Your task to perform on an android device: Show me popular games on the Play Store Image 0: 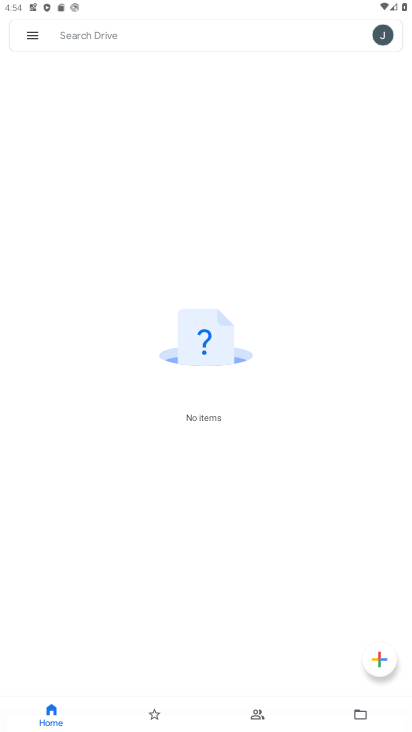
Step 0: press home button
Your task to perform on an android device: Show me popular games on the Play Store Image 1: 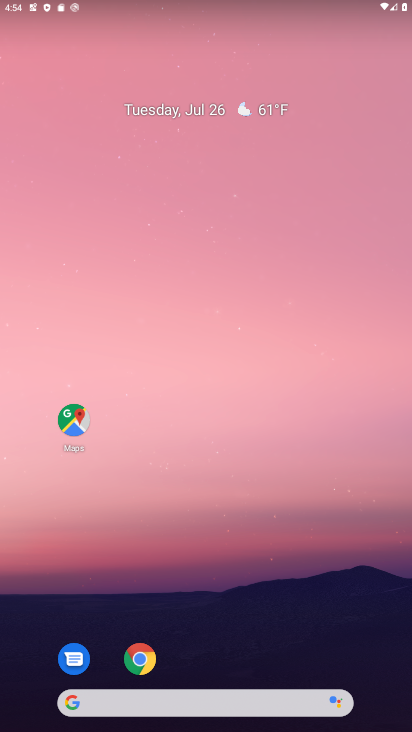
Step 1: drag from (285, 578) to (274, 252)
Your task to perform on an android device: Show me popular games on the Play Store Image 2: 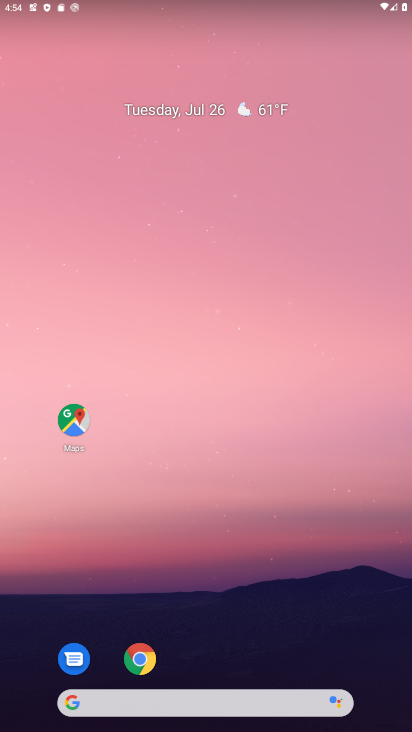
Step 2: drag from (196, 550) to (259, 0)
Your task to perform on an android device: Show me popular games on the Play Store Image 3: 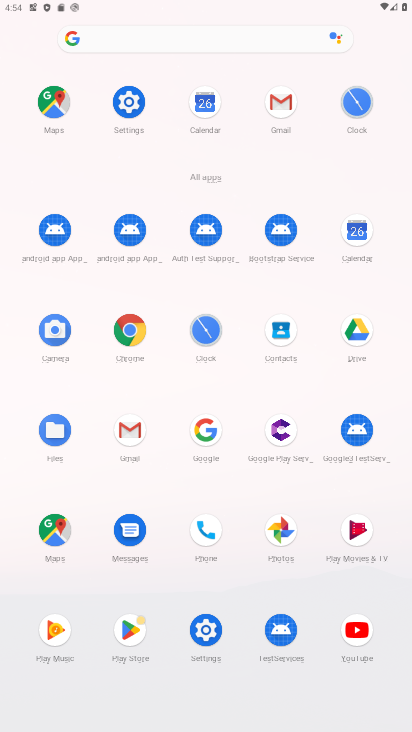
Step 3: click (126, 646)
Your task to perform on an android device: Show me popular games on the Play Store Image 4: 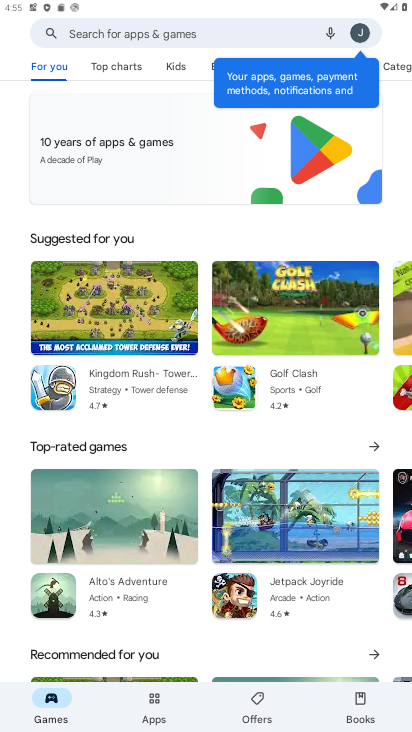
Step 4: press home button
Your task to perform on an android device: Show me popular games on the Play Store Image 5: 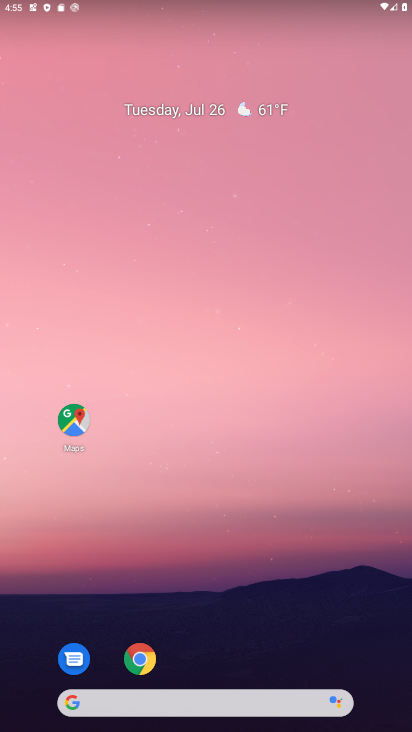
Step 5: drag from (225, 542) to (258, 157)
Your task to perform on an android device: Show me popular games on the Play Store Image 6: 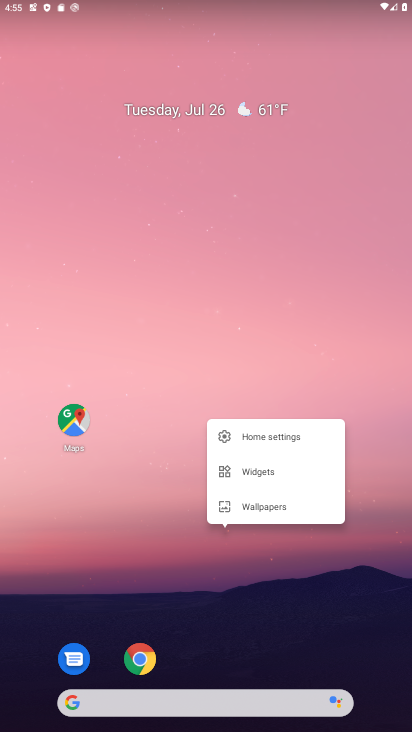
Step 6: click (278, 591)
Your task to perform on an android device: Show me popular games on the Play Store Image 7: 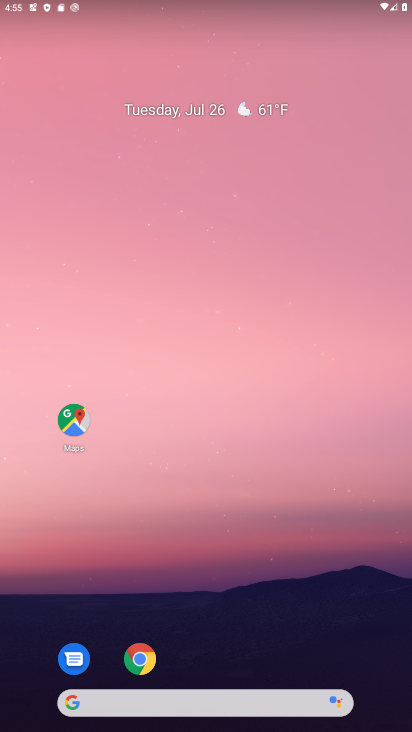
Step 7: drag from (278, 591) to (187, 79)
Your task to perform on an android device: Show me popular games on the Play Store Image 8: 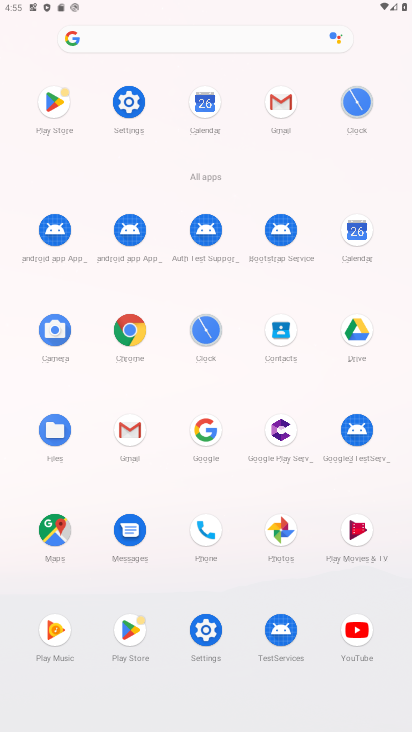
Step 8: click (134, 626)
Your task to perform on an android device: Show me popular games on the Play Store Image 9: 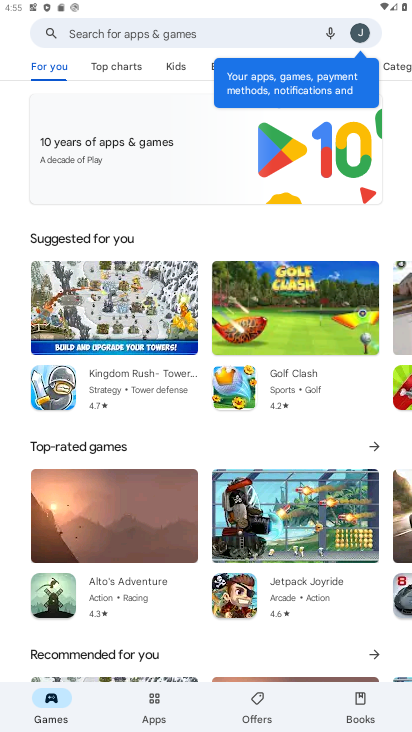
Step 9: task complete